Your task to perform on an android device: all mails in gmail Image 0: 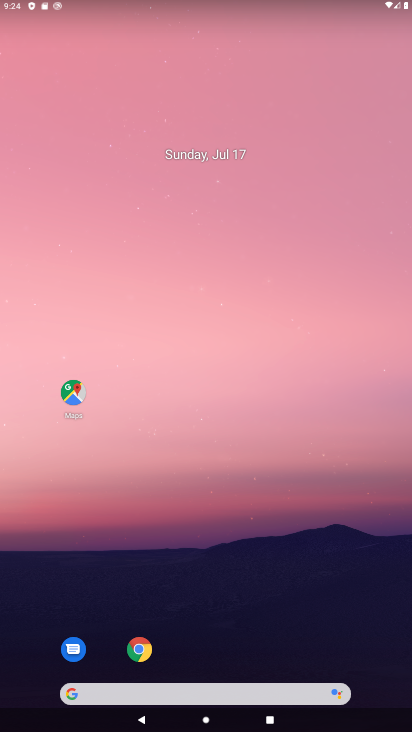
Step 0: drag from (38, 680) to (149, 139)
Your task to perform on an android device: all mails in gmail Image 1: 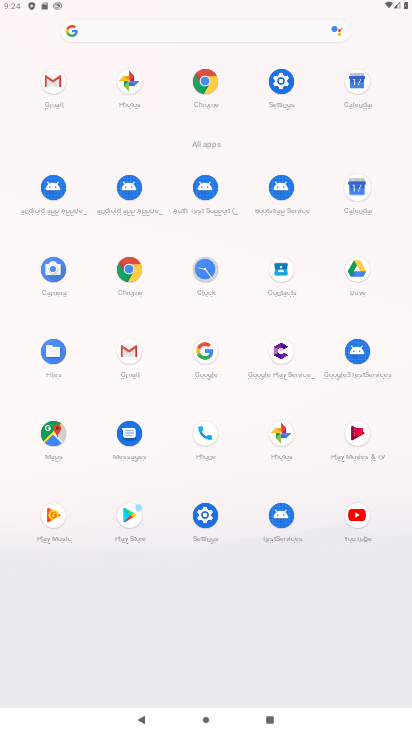
Step 1: click (121, 359)
Your task to perform on an android device: all mails in gmail Image 2: 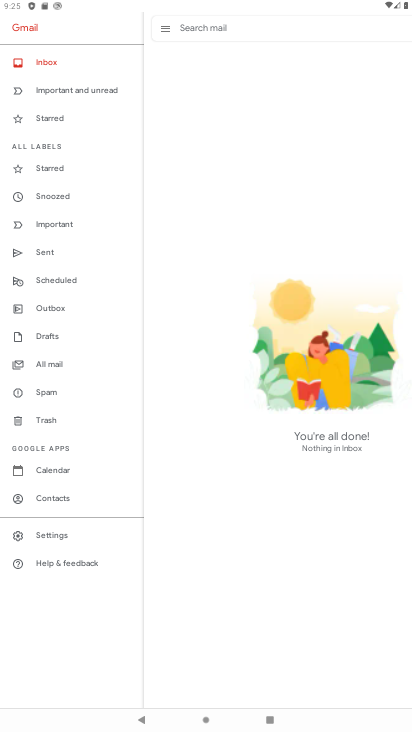
Step 2: click (42, 364)
Your task to perform on an android device: all mails in gmail Image 3: 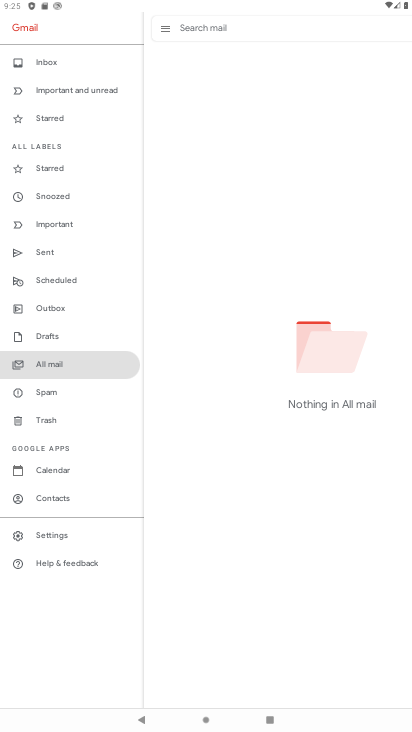
Step 3: task complete